Your task to perform on an android device: Clear the cart on costco.com. Search for macbook pro on costco.com, select the first entry, and add it to the cart. Image 0: 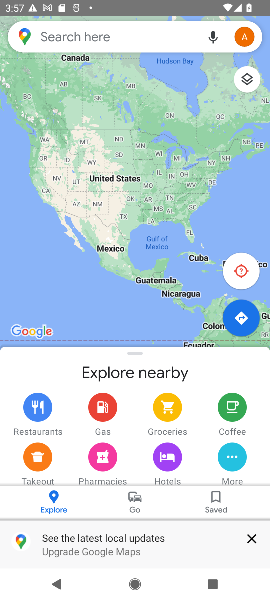
Step 0: task complete